Your task to perform on an android device: clear history in the chrome app Image 0: 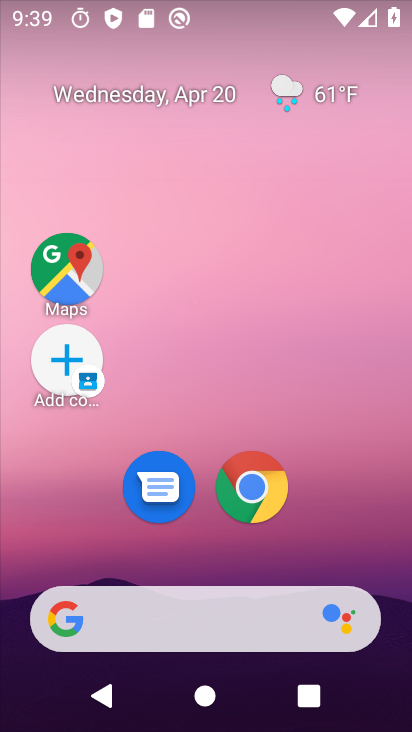
Step 0: click (259, 494)
Your task to perform on an android device: clear history in the chrome app Image 1: 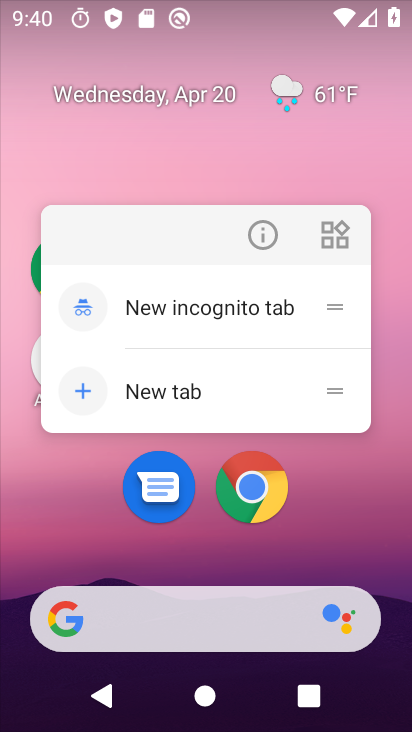
Step 1: click (259, 494)
Your task to perform on an android device: clear history in the chrome app Image 2: 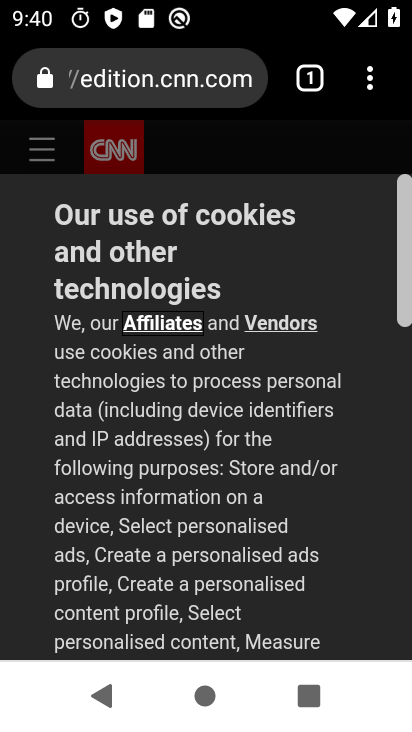
Step 2: click (376, 78)
Your task to perform on an android device: clear history in the chrome app Image 3: 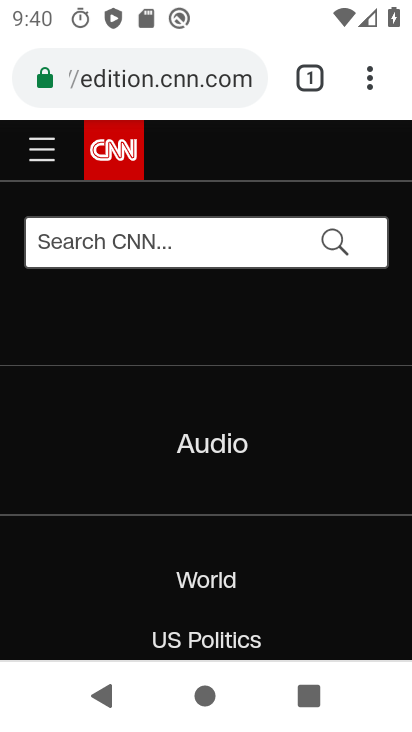
Step 3: click (366, 83)
Your task to perform on an android device: clear history in the chrome app Image 4: 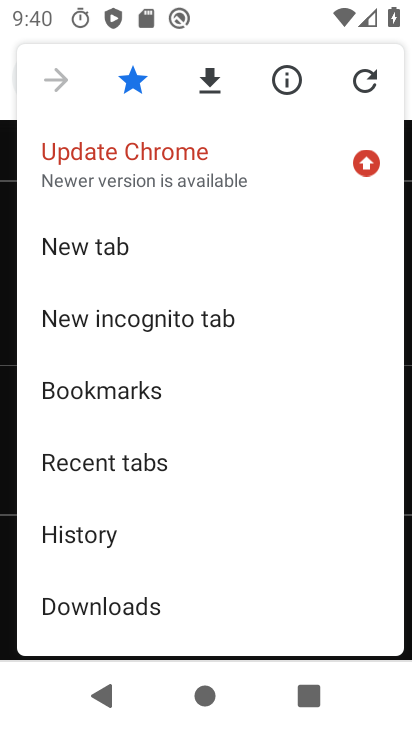
Step 4: click (141, 526)
Your task to perform on an android device: clear history in the chrome app Image 5: 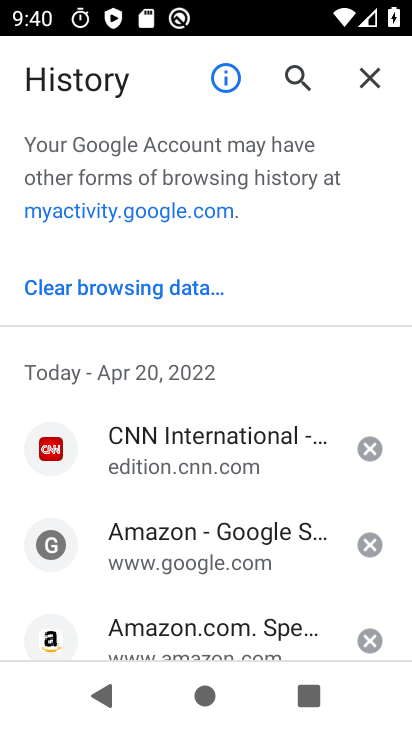
Step 5: click (173, 283)
Your task to perform on an android device: clear history in the chrome app Image 6: 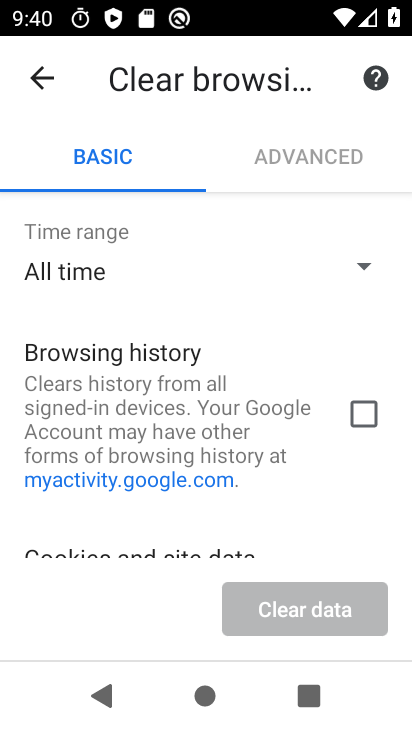
Step 6: click (248, 423)
Your task to perform on an android device: clear history in the chrome app Image 7: 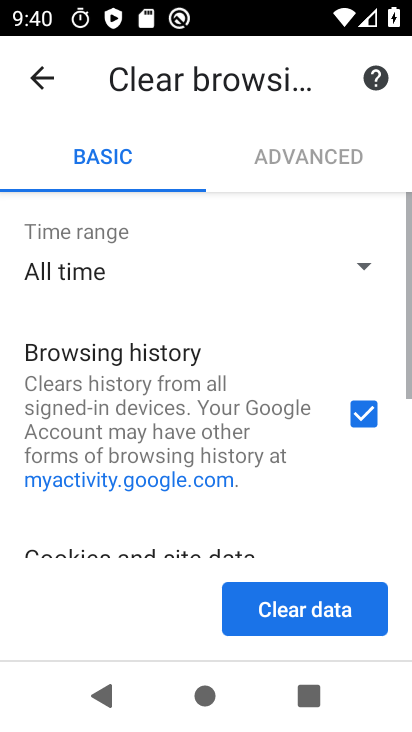
Step 7: drag from (252, 481) to (232, 322)
Your task to perform on an android device: clear history in the chrome app Image 8: 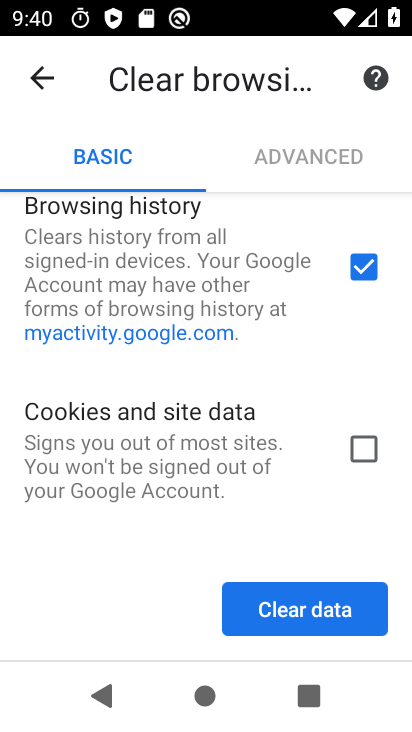
Step 8: click (230, 462)
Your task to perform on an android device: clear history in the chrome app Image 9: 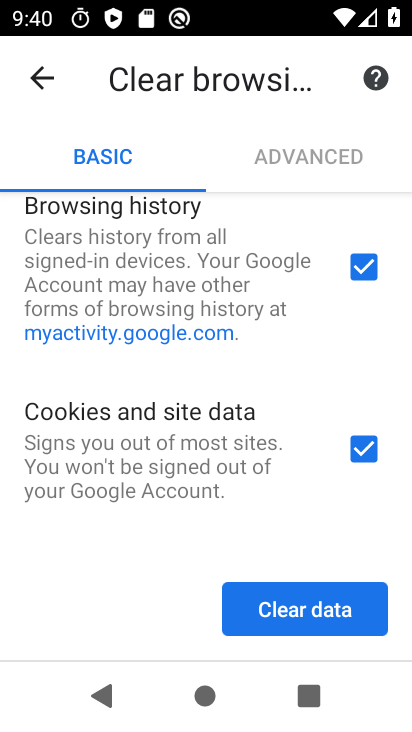
Step 9: drag from (222, 504) to (208, 305)
Your task to perform on an android device: clear history in the chrome app Image 10: 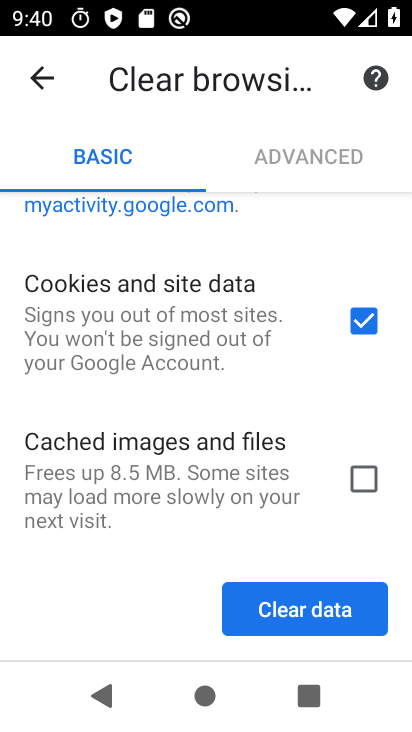
Step 10: click (222, 458)
Your task to perform on an android device: clear history in the chrome app Image 11: 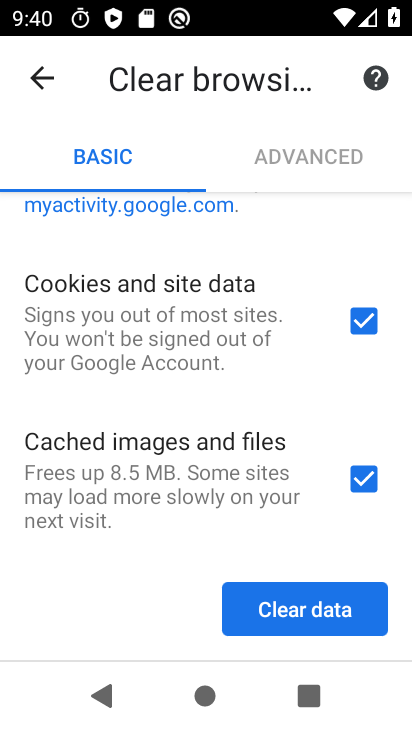
Step 11: click (246, 615)
Your task to perform on an android device: clear history in the chrome app Image 12: 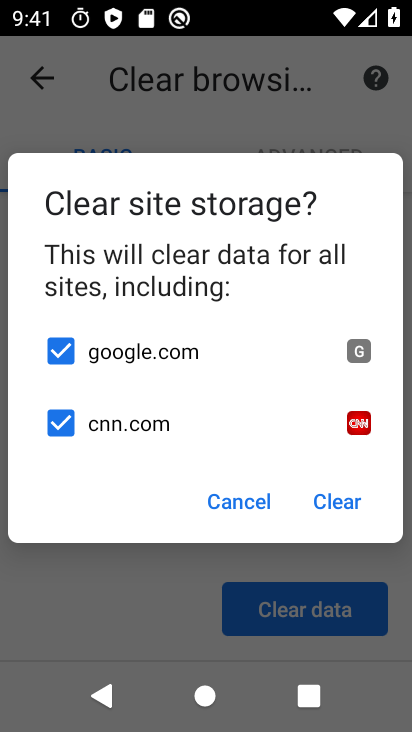
Step 12: click (335, 499)
Your task to perform on an android device: clear history in the chrome app Image 13: 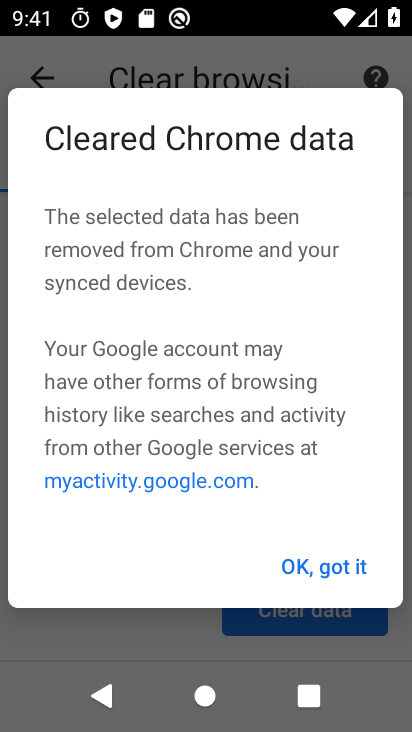
Step 13: click (289, 581)
Your task to perform on an android device: clear history in the chrome app Image 14: 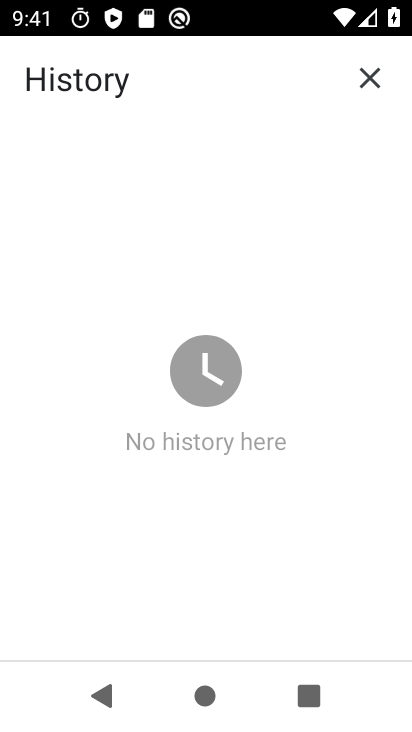
Step 14: task complete